Your task to perform on an android device: set default search engine in the chrome app Image 0: 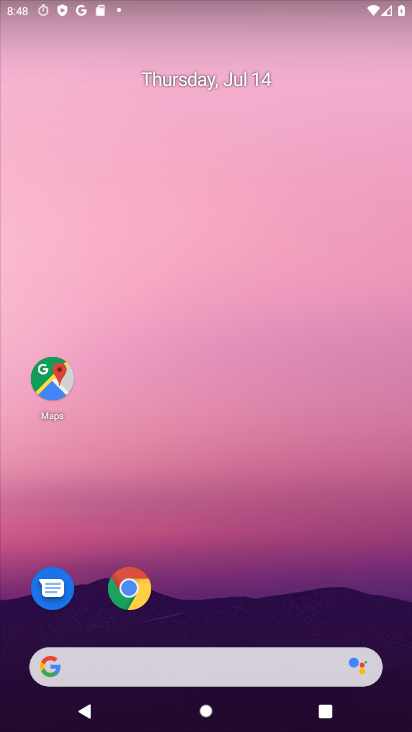
Step 0: click (171, 132)
Your task to perform on an android device: set default search engine in the chrome app Image 1: 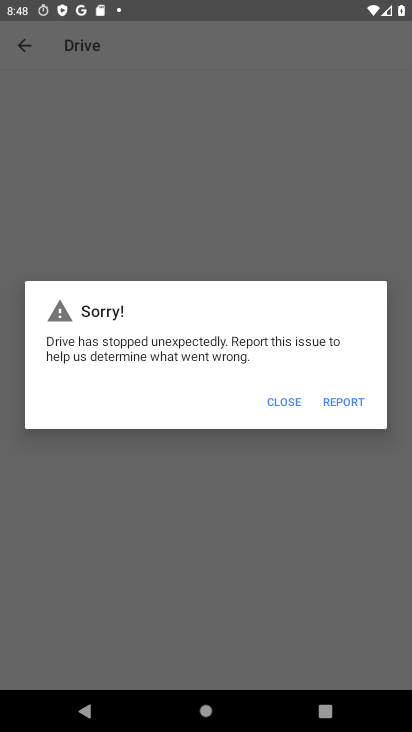
Step 1: drag from (268, 657) to (225, 281)
Your task to perform on an android device: set default search engine in the chrome app Image 2: 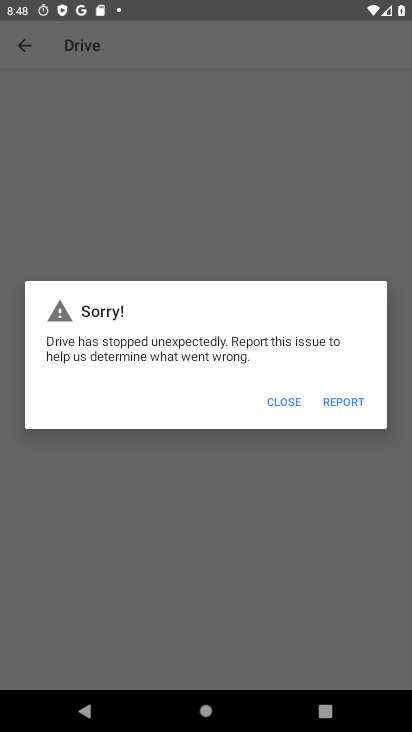
Step 2: click (272, 393)
Your task to perform on an android device: set default search engine in the chrome app Image 3: 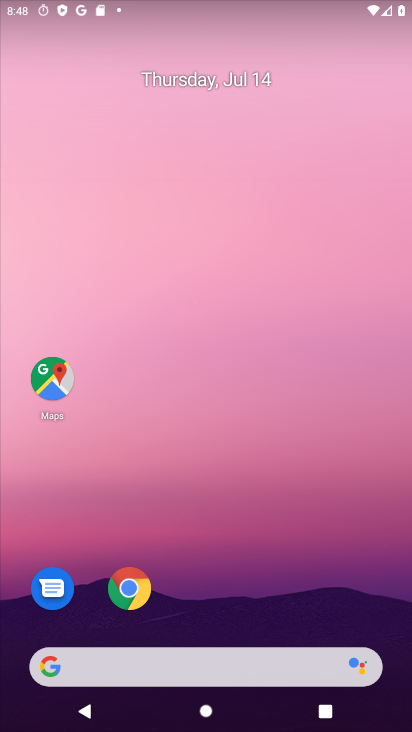
Step 3: drag from (268, 659) to (264, 314)
Your task to perform on an android device: set default search engine in the chrome app Image 4: 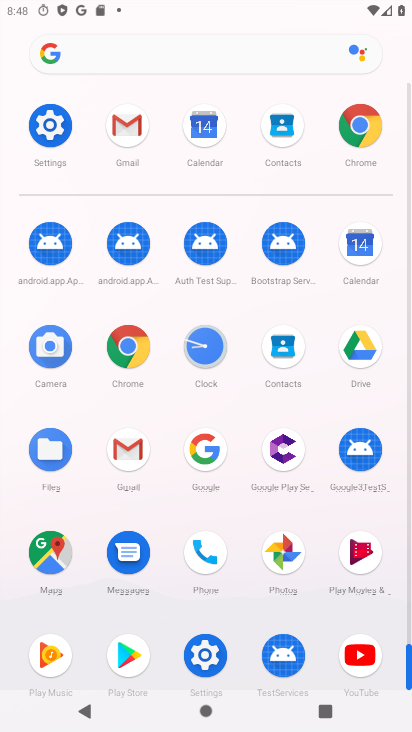
Step 4: click (357, 133)
Your task to perform on an android device: set default search engine in the chrome app Image 5: 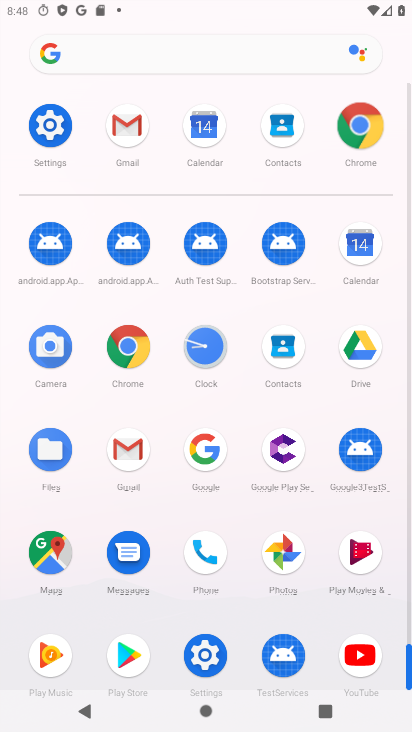
Step 5: click (359, 131)
Your task to perform on an android device: set default search engine in the chrome app Image 6: 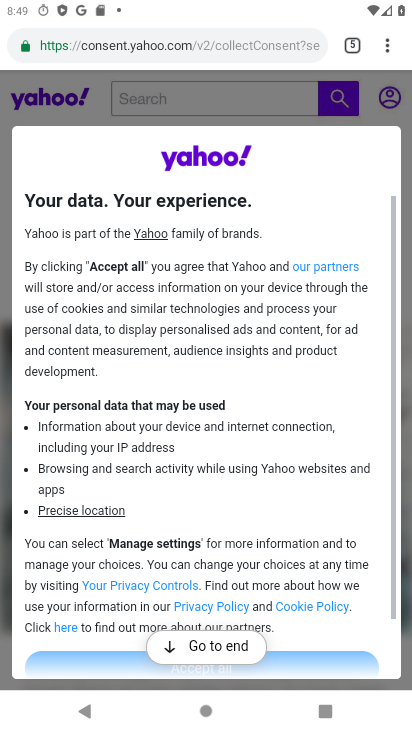
Step 6: click (388, 38)
Your task to perform on an android device: set default search engine in the chrome app Image 7: 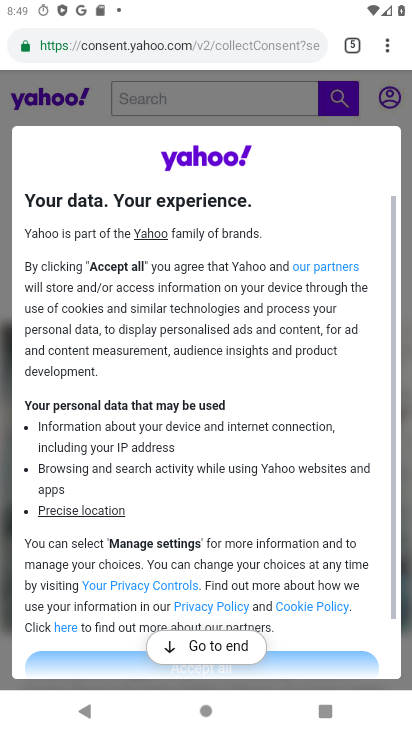
Step 7: drag from (386, 49) to (209, 548)
Your task to perform on an android device: set default search engine in the chrome app Image 8: 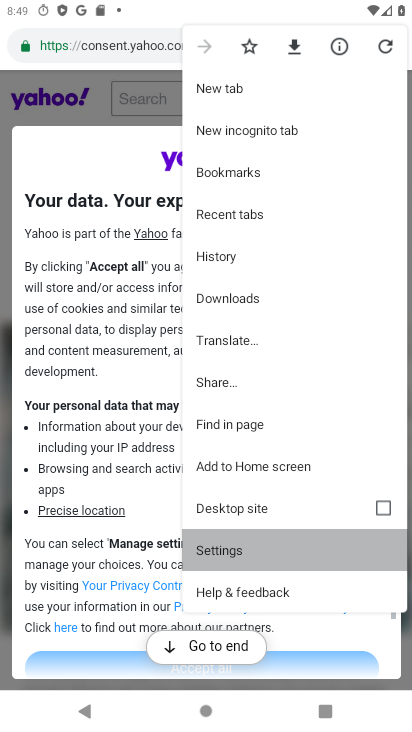
Step 8: click (213, 540)
Your task to perform on an android device: set default search engine in the chrome app Image 9: 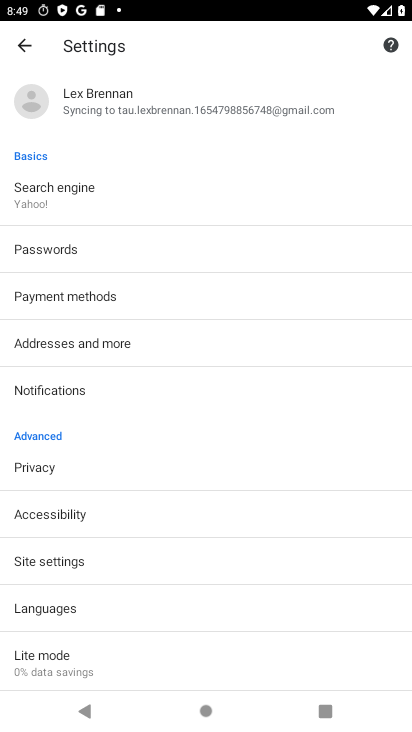
Step 9: click (30, 559)
Your task to perform on an android device: set default search engine in the chrome app Image 10: 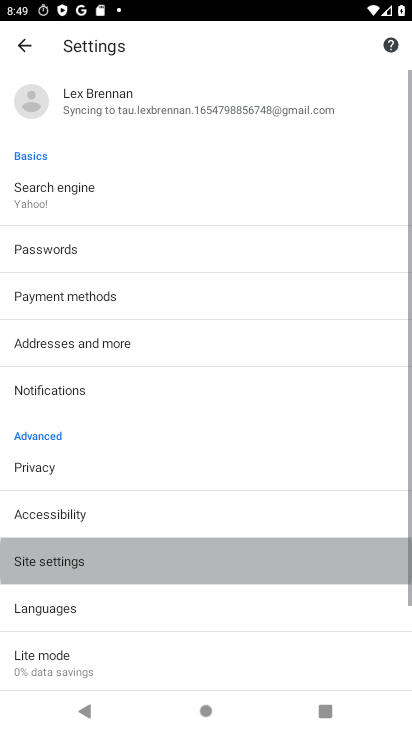
Step 10: click (30, 564)
Your task to perform on an android device: set default search engine in the chrome app Image 11: 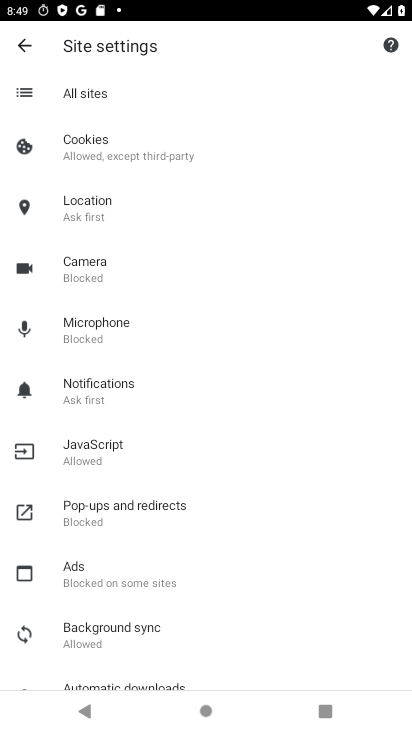
Step 11: drag from (82, 575) to (75, 348)
Your task to perform on an android device: set default search engine in the chrome app Image 12: 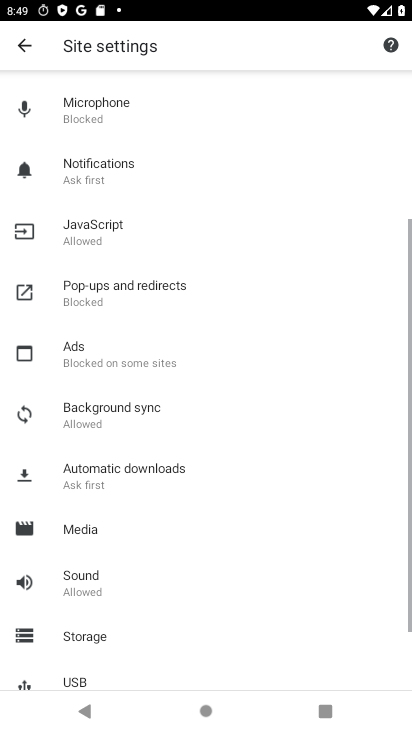
Step 12: drag from (126, 542) to (106, 278)
Your task to perform on an android device: set default search engine in the chrome app Image 13: 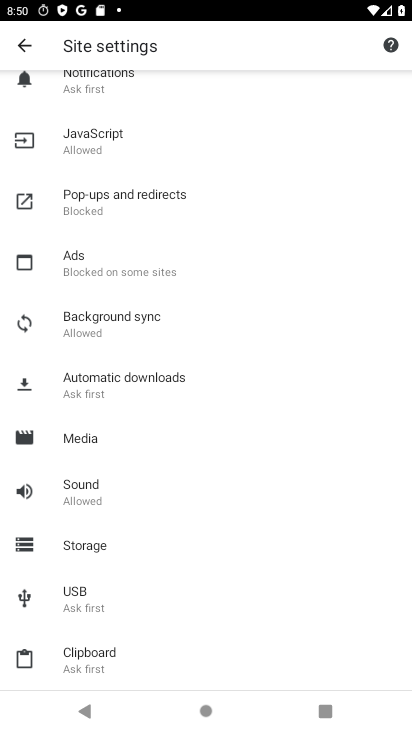
Step 13: drag from (92, 211) to (95, 437)
Your task to perform on an android device: set default search engine in the chrome app Image 14: 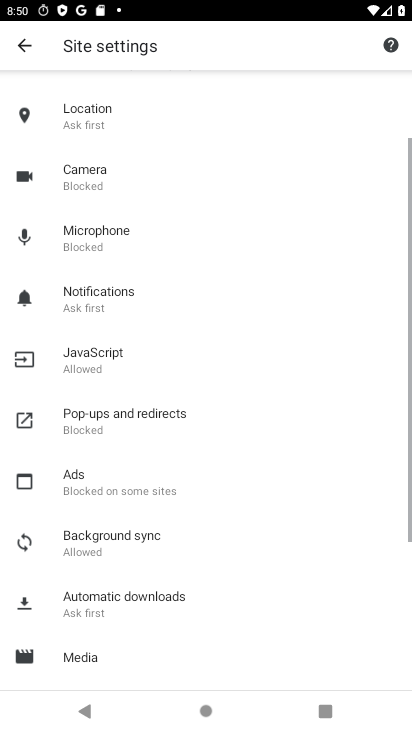
Step 14: drag from (85, 245) to (85, 521)
Your task to perform on an android device: set default search engine in the chrome app Image 15: 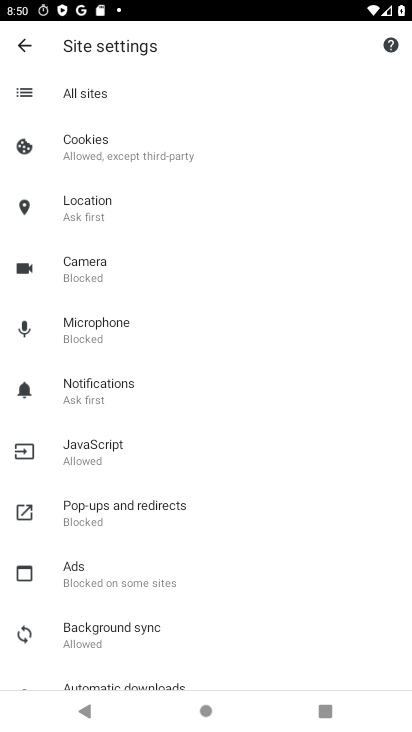
Step 15: click (25, 53)
Your task to perform on an android device: set default search engine in the chrome app Image 16: 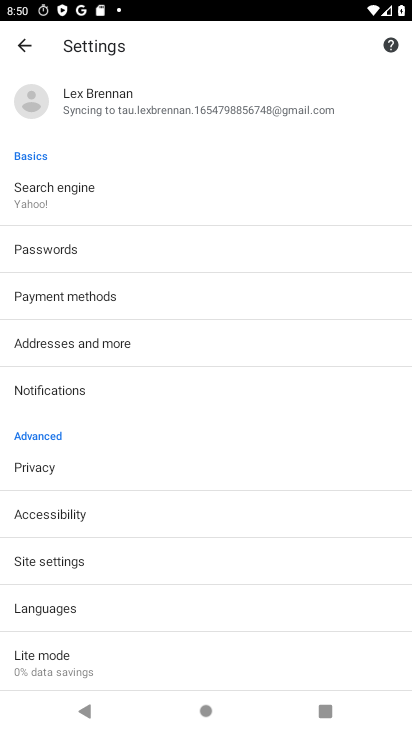
Step 16: click (42, 190)
Your task to perform on an android device: set default search engine in the chrome app Image 17: 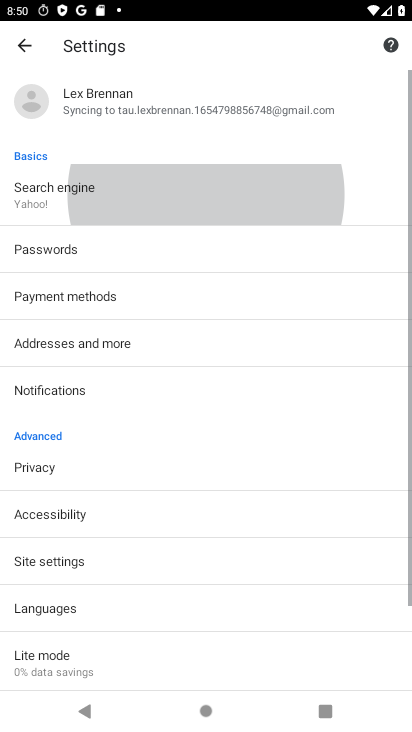
Step 17: click (41, 191)
Your task to perform on an android device: set default search engine in the chrome app Image 18: 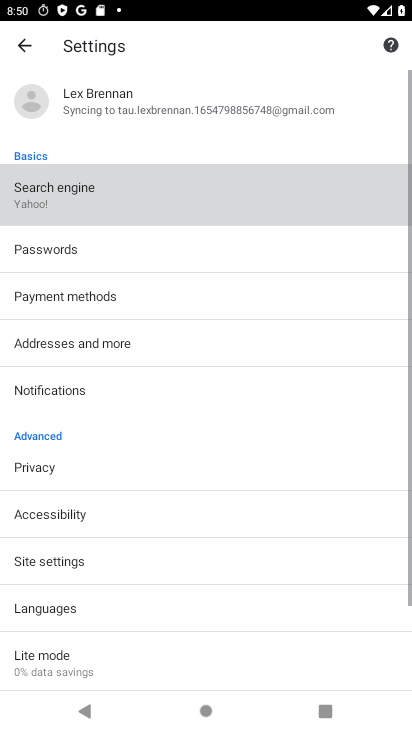
Step 18: click (42, 192)
Your task to perform on an android device: set default search engine in the chrome app Image 19: 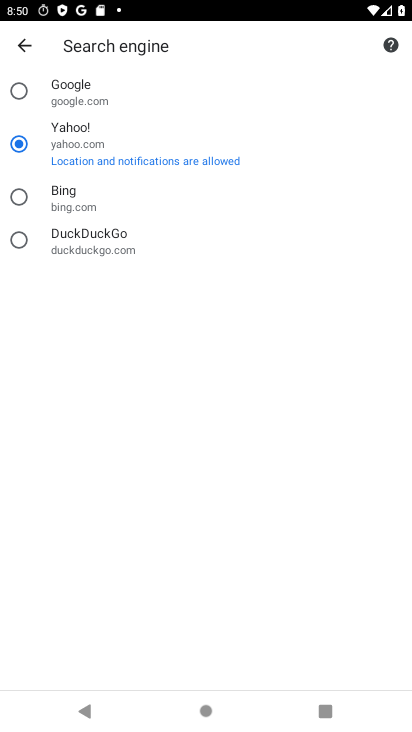
Step 19: click (19, 91)
Your task to perform on an android device: set default search engine in the chrome app Image 20: 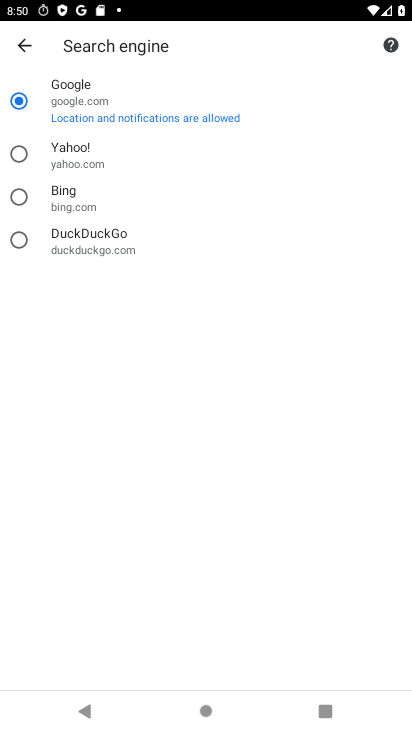
Step 20: task complete